Your task to perform on an android device: Do I have any events tomorrow? Image 0: 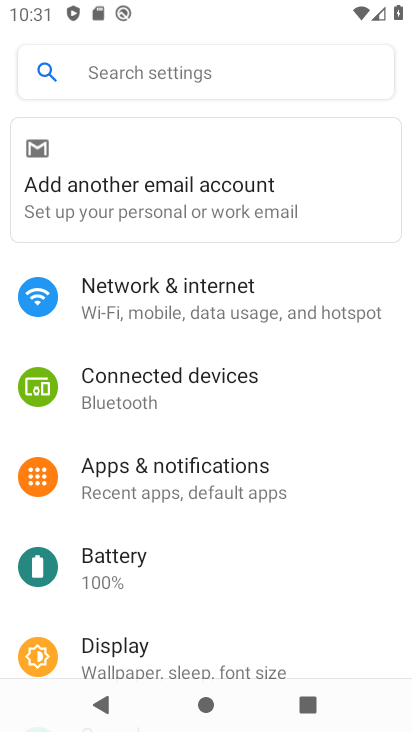
Step 0: press home button
Your task to perform on an android device: Do I have any events tomorrow? Image 1: 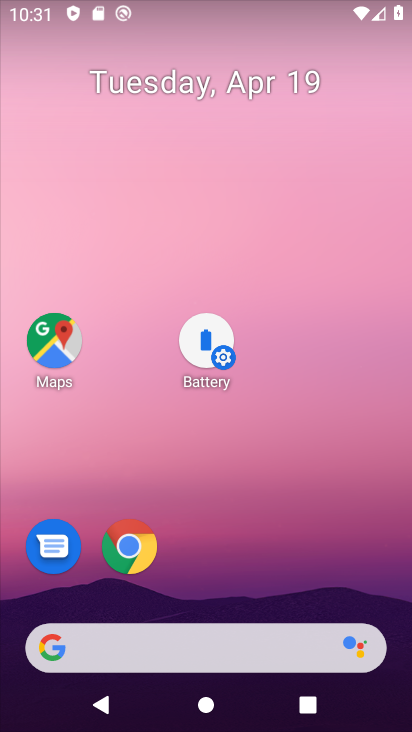
Step 1: drag from (201, 579) to (299, 17)
Your task to perform on an android device: Do I have any events tomorrow? Image 2: 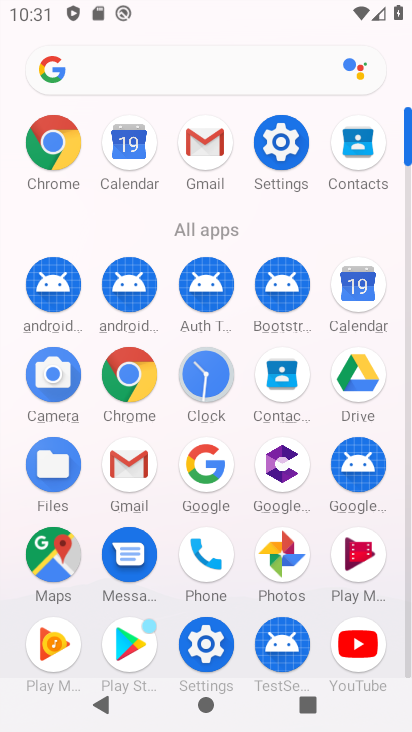
Step 2: click (362, 289)
Your task to perform on an android device: Do I have any events tomorrow? Image 3: 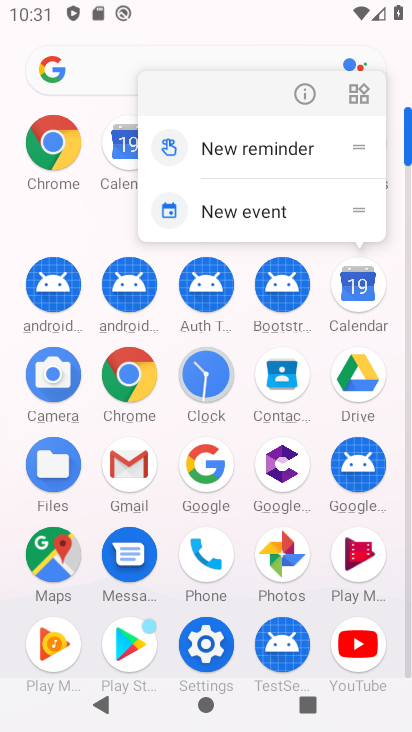
Step 3: click (341, 292)
Your task to perform on an android device: Do I have any events tomorrow? Image 4: 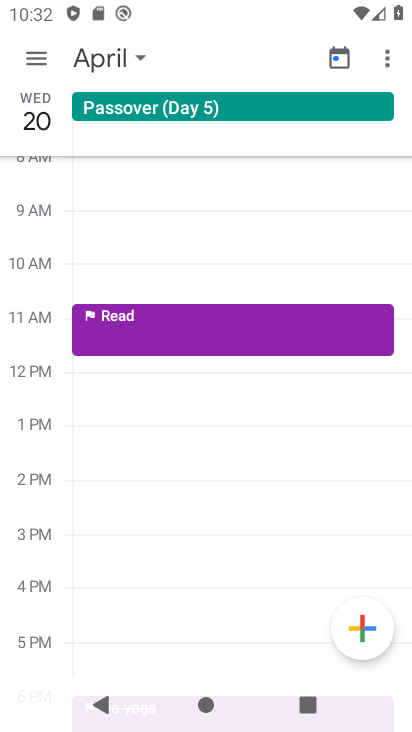
Step 4: click (42, 54)
Your task to perform on an android device: Do I have any events tomorrow? Image 5: 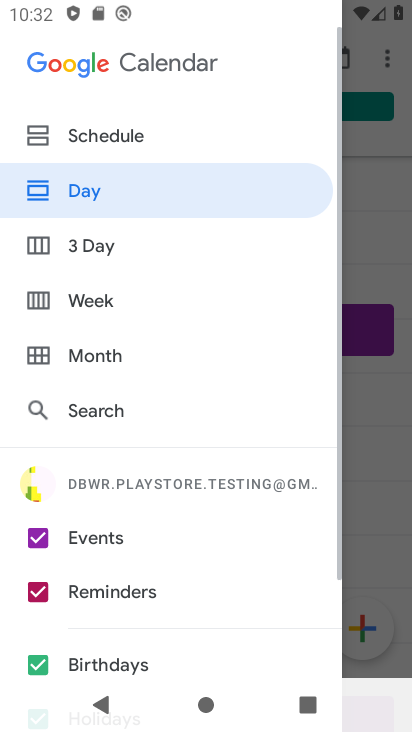
Step 5: click (149, 136)
Your task to perform on an android device: Do I have any events tomorrow? Image 6: 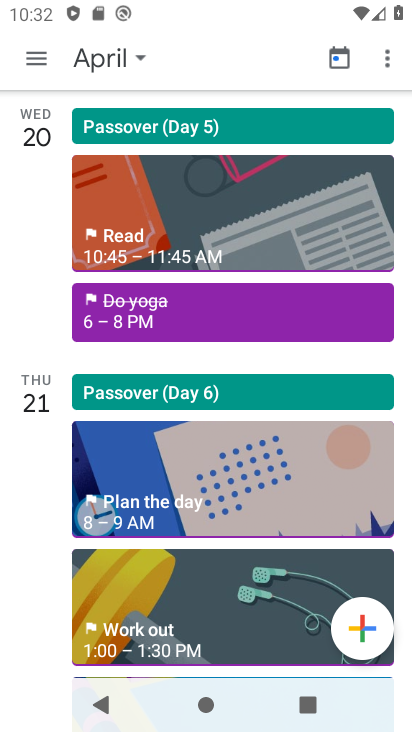
Step 6: drag from (176, 632) to (262, 252)
Your task to perform on an android device: Do I have any events tomorrow? Image 7: 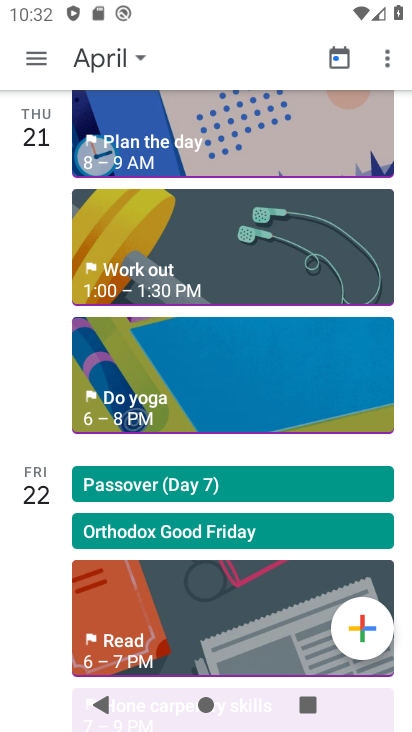
Step 7: click (167, 394)
Your task to perform on an android device: Do I have any events tomorrow? Image 8: 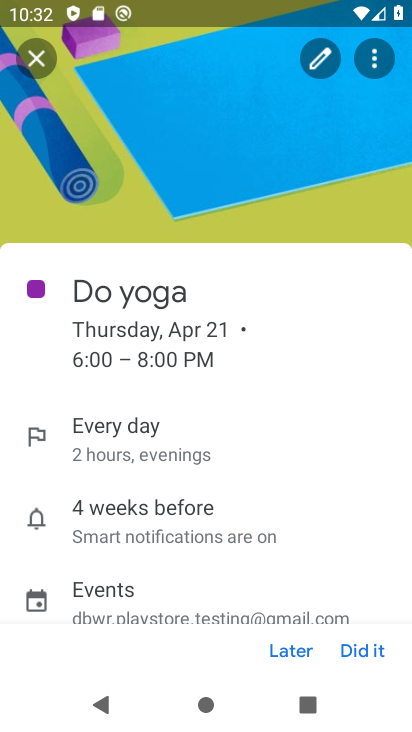
Step 8: task complete